Your task to perform on an android device: Open internet settings Image 0: 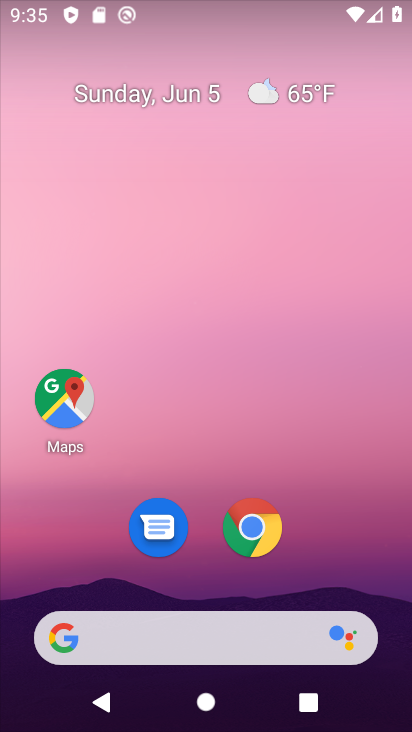
Step 0: drag from (198, 587) to (223, 176)
Your task to perform on an android device: Open internet settings Image 1: 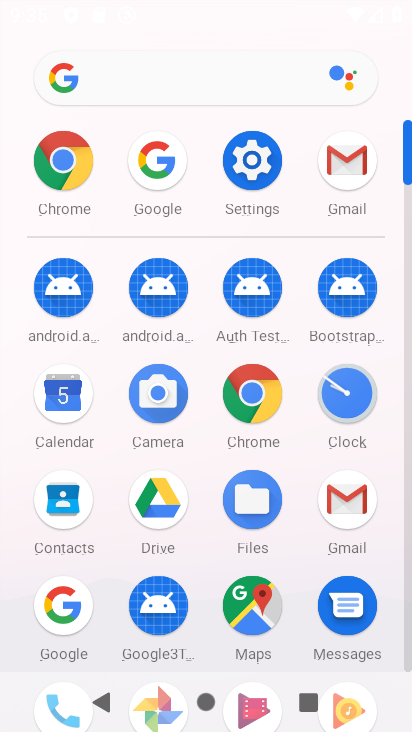
Step 1: click (244, 168)
Your task to perform on an android device: Open internet settings Image 2: 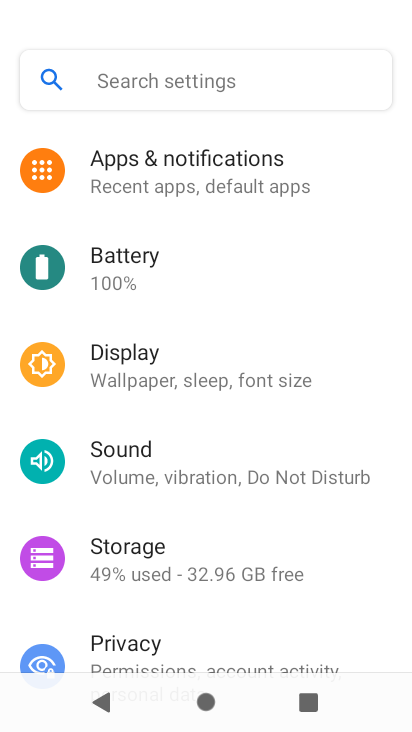
Step 2: drag from (257, 168) to (232, 696)
Your task to perform on an android device: Open internet settings Image 3: 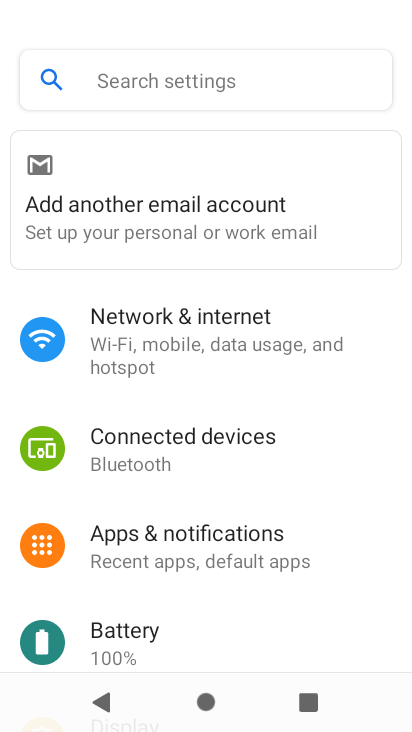
Step 3: click (196, 335)
Your task to perform on an android device: Open internet settings Image 4: 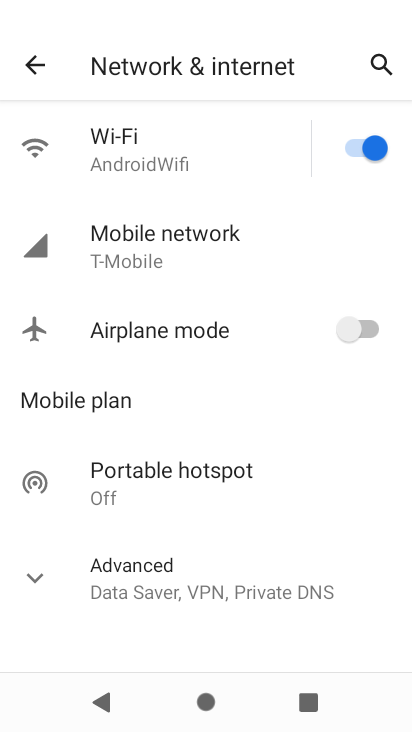
Step 4: task complete